Your task to perform on an android device: Go to network settings Image 0: 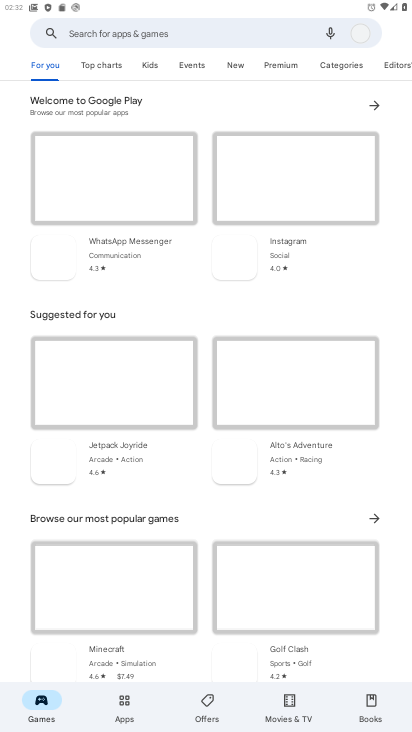
Step 0: press home button
Your task to perform on an android device: Go to network settings Image 1: 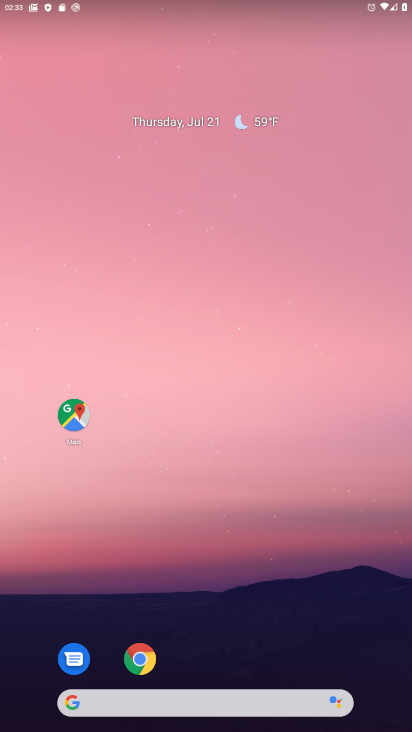
Step 1: drag from (293, 623) to (138, 87)
Your task to perform on an android device: Go to network settings Image 2: 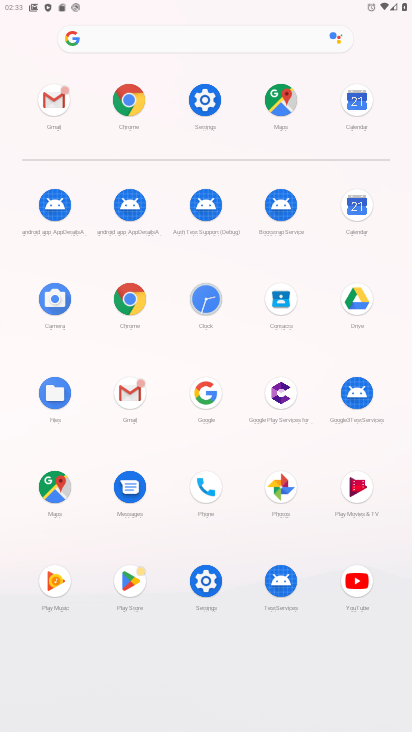
Step 2: click (203, 105)
Your task to perform on an android device: Go to network settings Image 3: 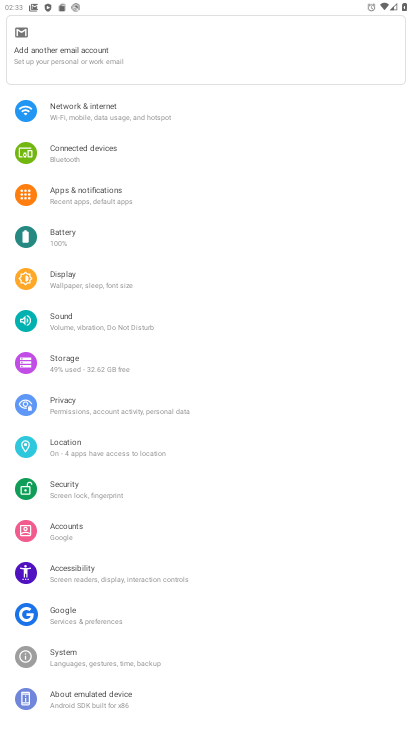
Step 3: click (102, 116)
Your task to perform on an android device: Go to network settings Image 4: 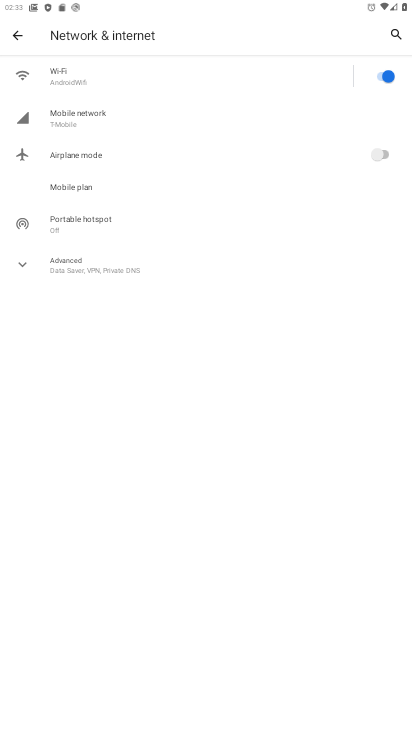
Step 4: task complete